Your task to perform on an android device: WHat are the new products by Samsung on eBay? Image 0: 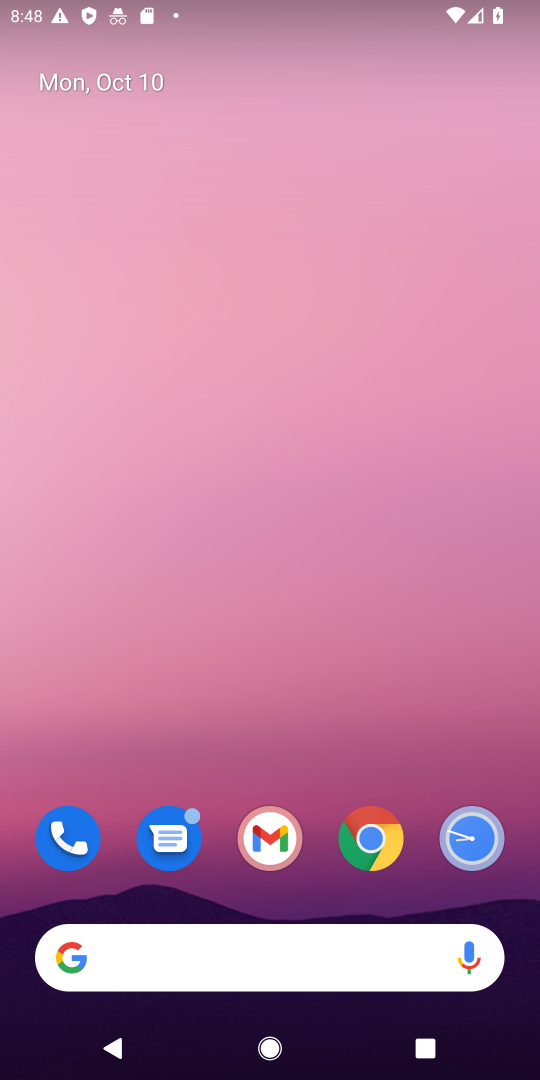
Step 0: drag from (322, 829) to (294, 79)
Your task to perform on an android device: WHat are the new products by Samsung on eBay? Image 1: 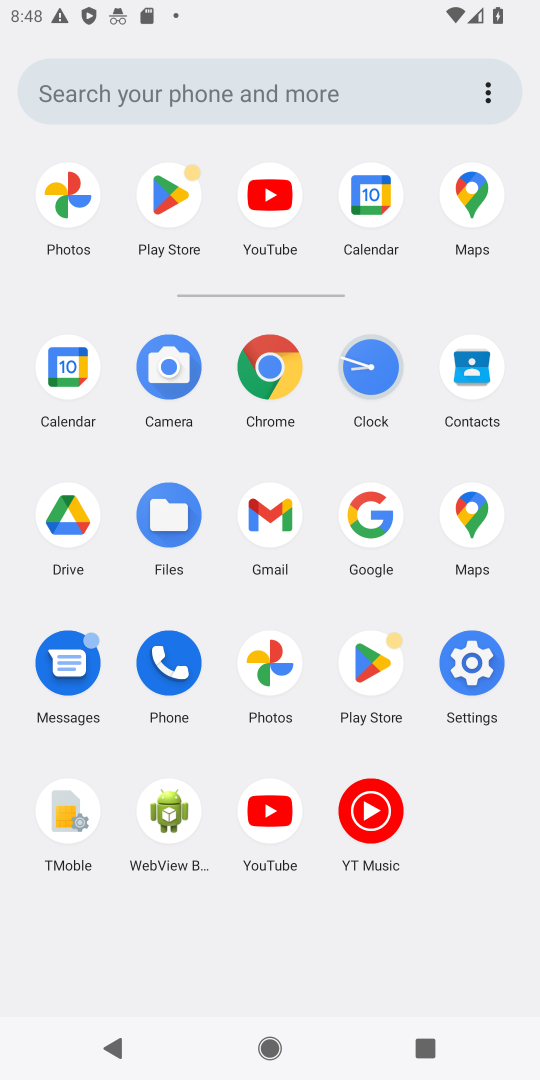
Step 1: click (373, 516)
Your task to perform on an android device: WHat are the new products by Samsung on eBay? Image 2: 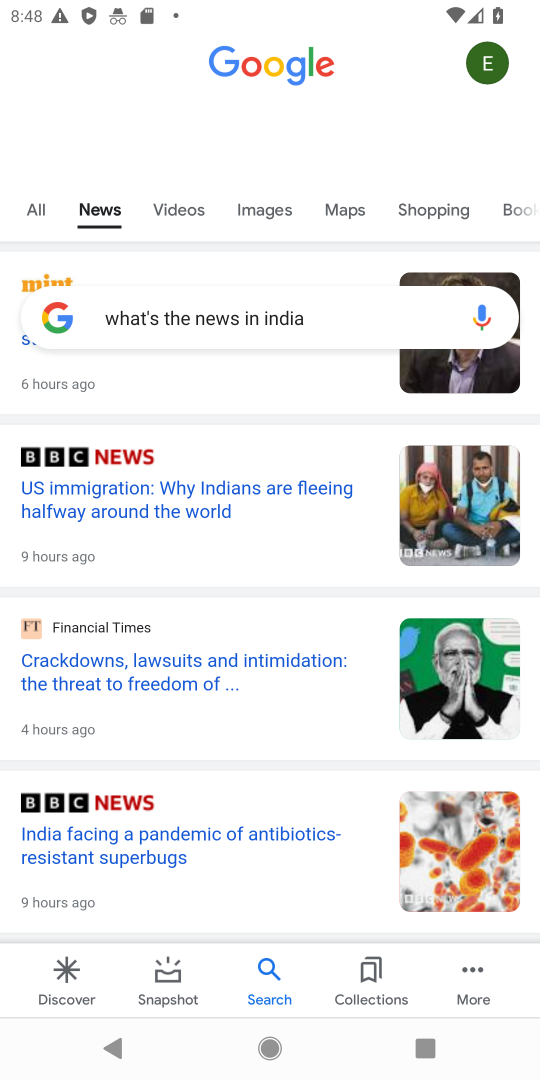
Step 2: click (269, 310)
Your task to perform on an android device: WHat are the new products by Samsung on eBay? Image 3: 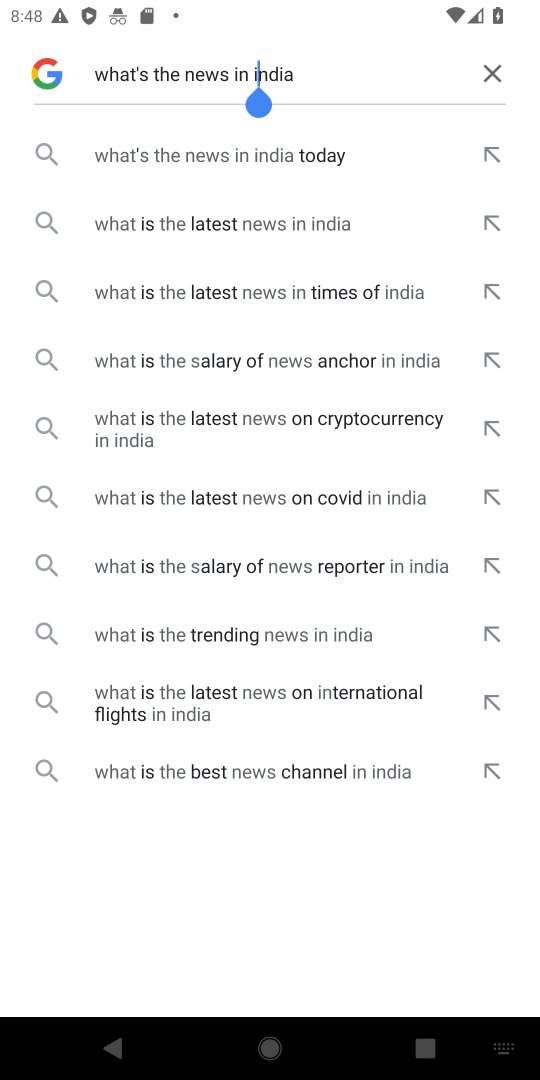
Step 3: click (500, 69)
Your task to perform on an android device: WHat are the new products by Samsung on eBay? Image 4: 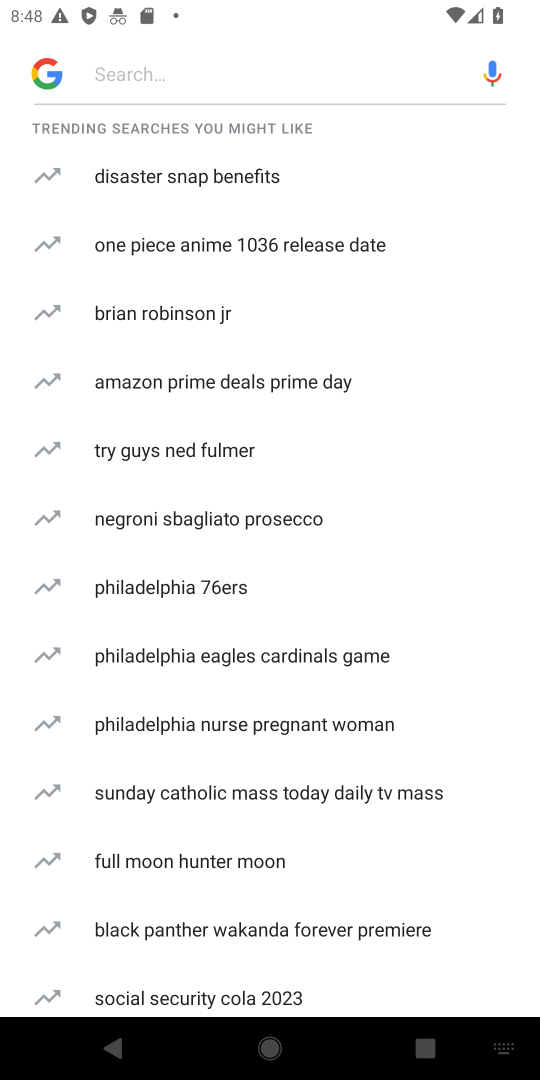
Step 4: type "WHat are the new products by Samsung on eBay?"
Your task to perform on an android device: WHat are the new products by Samsung on eBay? Image 5: 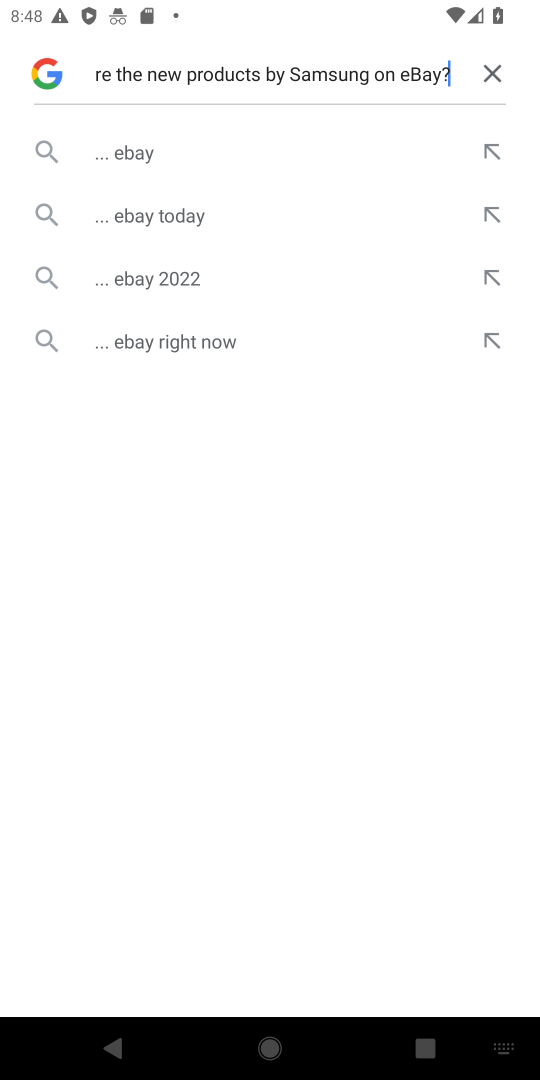
Step 5: type ""
Your task to perform on an android device: WHat are the new products by Samsung on eBay? Image 6: 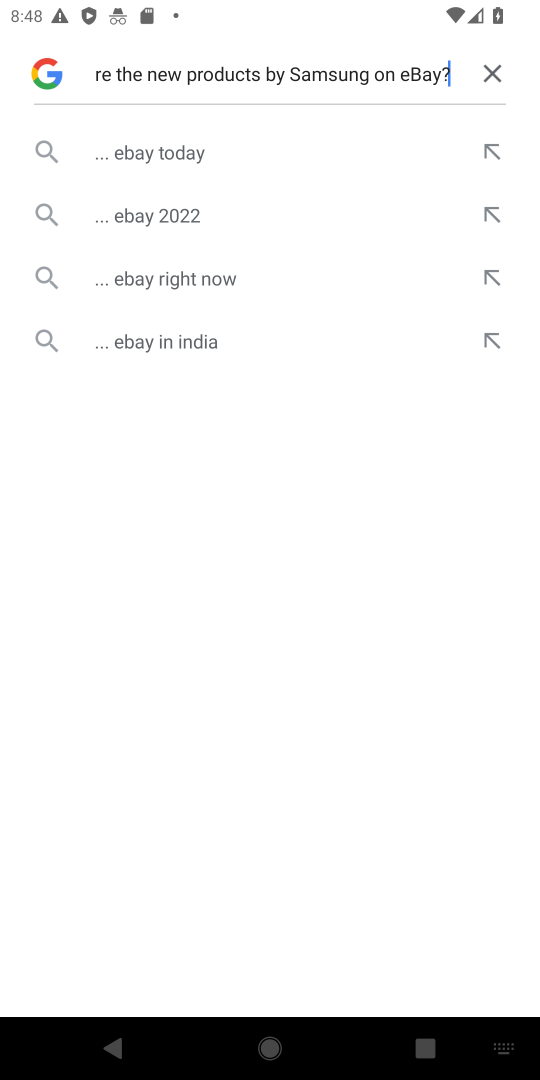
Step 6: click (194, 160)
Your task to perform on an android device: WHat are the new products by Samsung on eBay? Image 7: 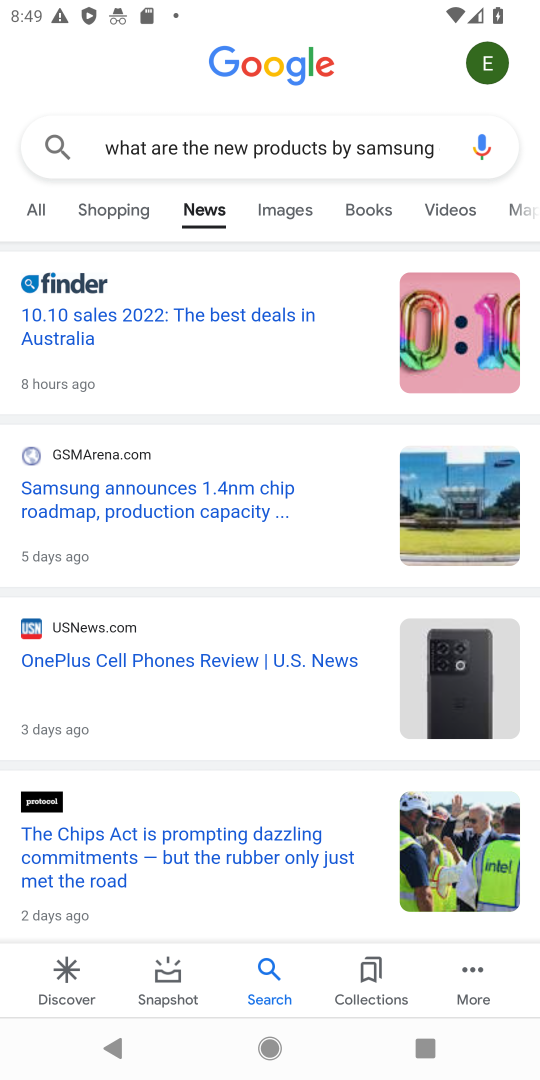
Step 7: click (36, 208)
Your task to perform on an android device: WHat are the new products by Samsung on eBay? Image 8: 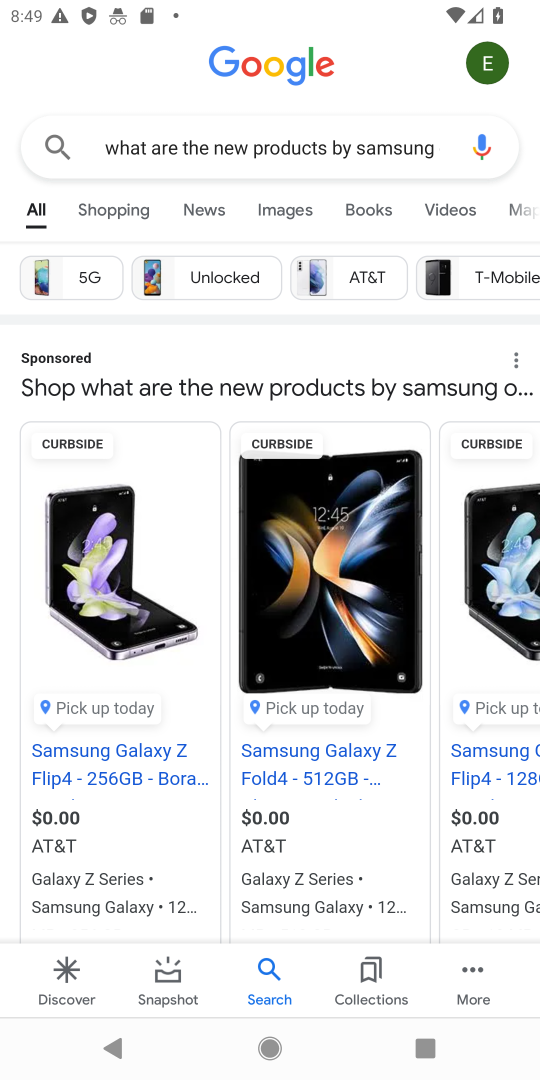
Step 8: task complete